Your task to perform on an android device: Open Youtube and go to "Your channel" Image 0: 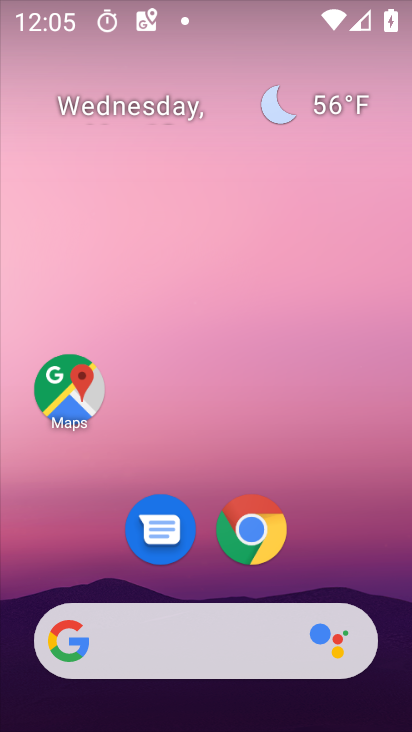
Step 0: drag from (188, 578) to (227, 121)
Your task to perform on an android device: Open Youtube and go to "Your channel" Image 1: 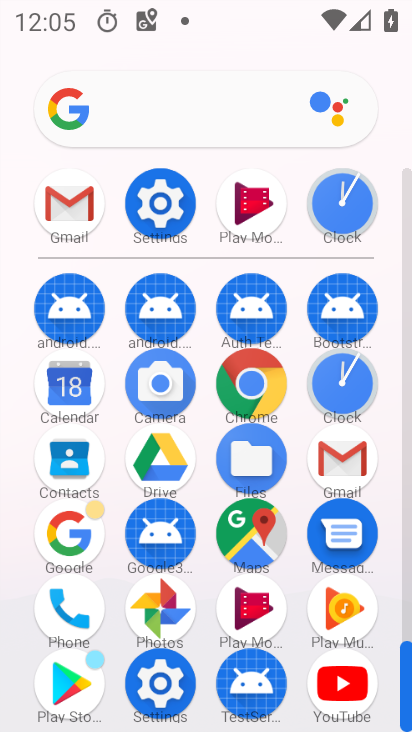
Step 1: click (349, 682)
Your task to perform on an android device: Open Youtube and go to "Your channel" Image 2: 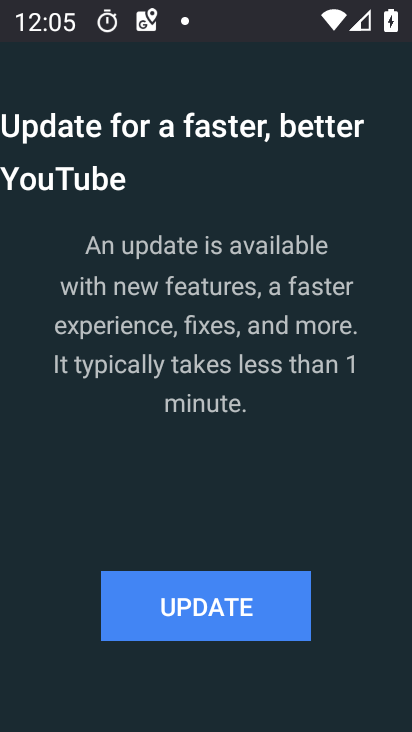
Step 2: click (235, 637)
Your task to perform on an android device: Open Youtube and go to "Your channel" Image 3: 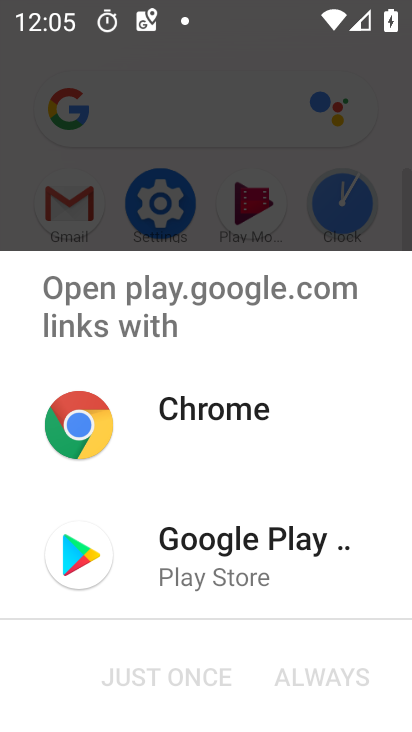
Step 3: click (193, 590)
Your task to perform on an android device: Open Youtube and go to "Your channel" Image 4: 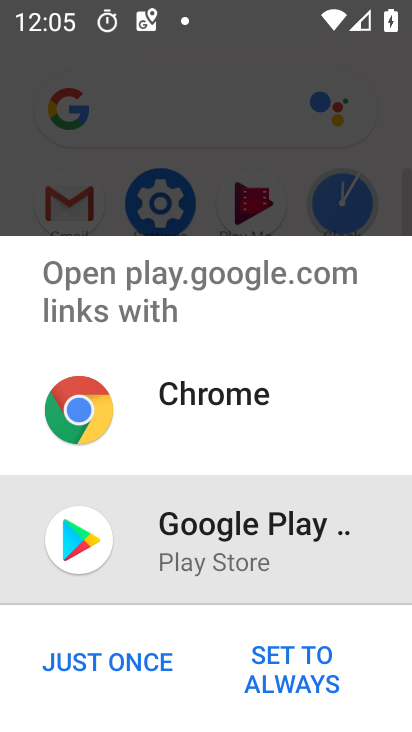
Step 4: click (93, 660)
Your task to perform on an android device: Open Youtube and go to "Your channel" Image 5: 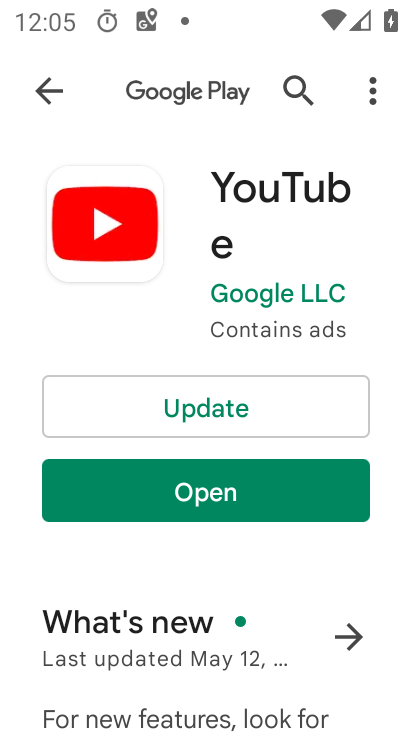
Step 5: click (238, 494)
Your task to perform on an android device: Open Youtube and go to "Your channel" Image 6: 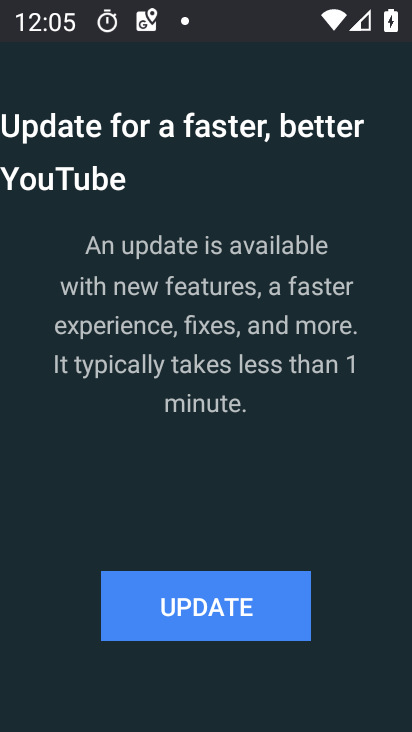
Step 6: click (199, 579)
Your task to perform on an android device: Open Youtube and go to "Your channel" Image 7: 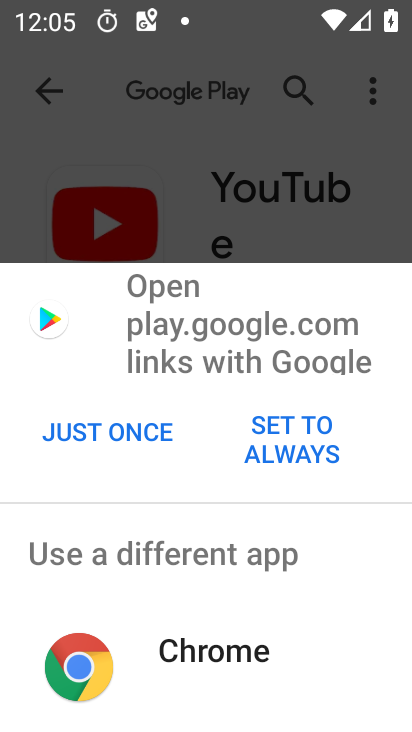
Step 7: click (157, 459)
Your task to perform on an android device: Open Youtube and go to "Your channel" Image 8: 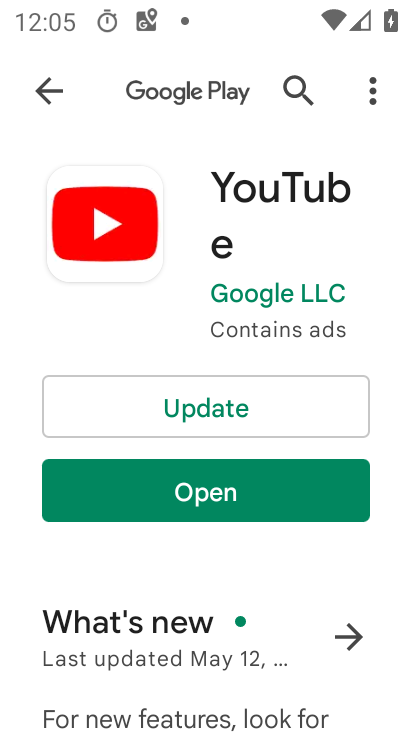
Step 8: click (315, 411)
Your task to perform on an android device: Open Youtube and go to "Your channel" Image 9: 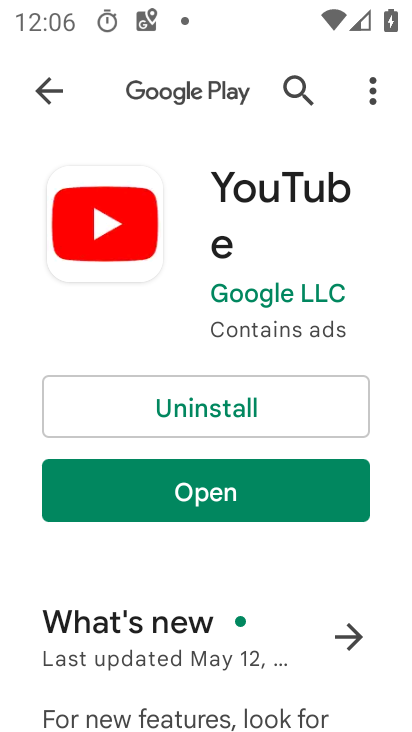
Step 9: click (242, 473)
Your task to perform on an android device: Open Youtube and go to "Your channel" Image 10: 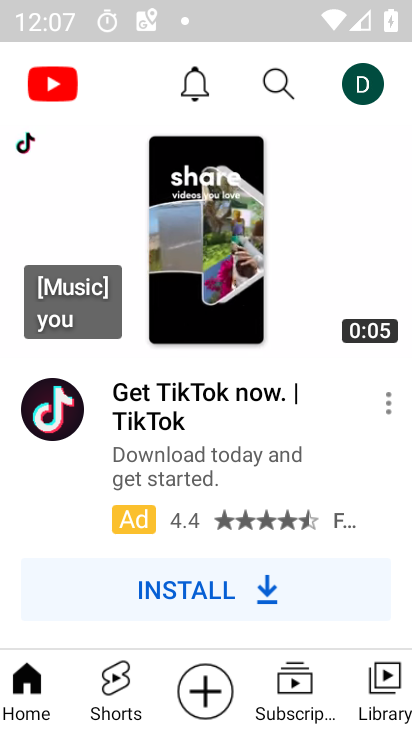
Step 10: click (290, 93)
Your task to perform on an android device: Open Youtube and go to "Your channel" Image 11: 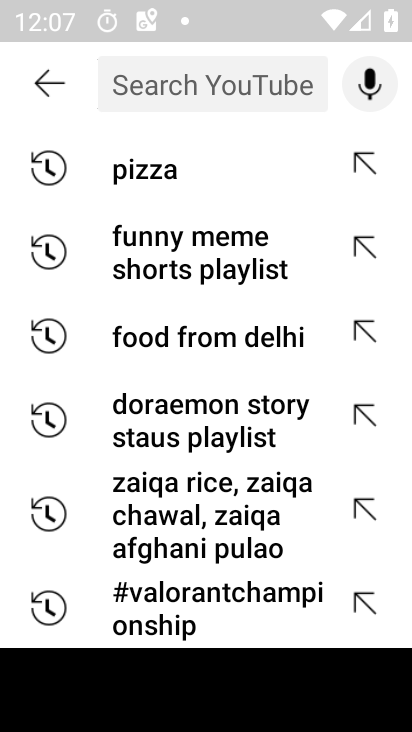
Step 11: type "your channel"
Your task to perform on an android device: Open Youtube and go to "Your channel" Image 12: 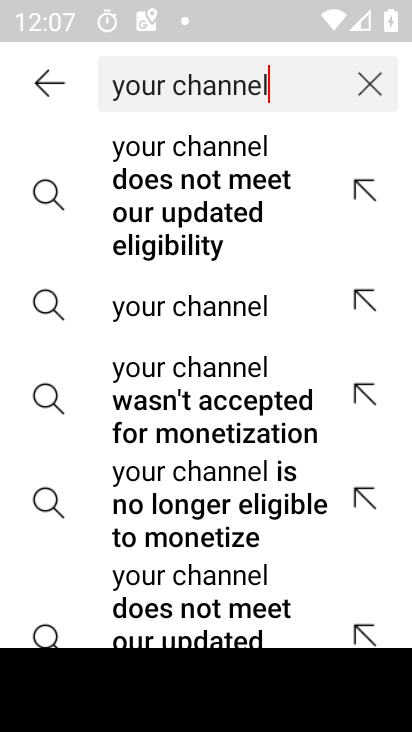
Step 12: click (245, 298)
Your task to perform on an android device: Open Youtube and go to "Your channel" Image 13: 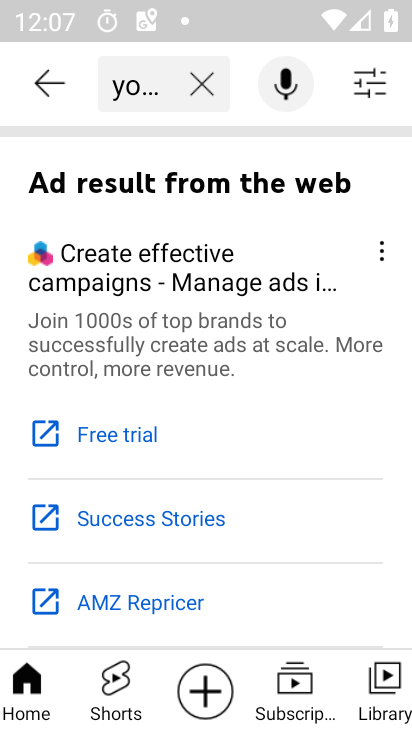
Step 13: task complete